Your task to perform on an android device: clear history in the chrome app Image 0: 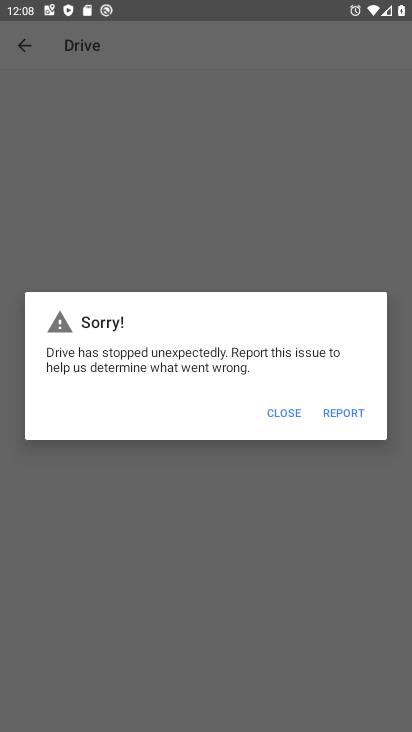
Step 0: press home button
Your task to perform on an android device: clear history in the chrome app Image 1: 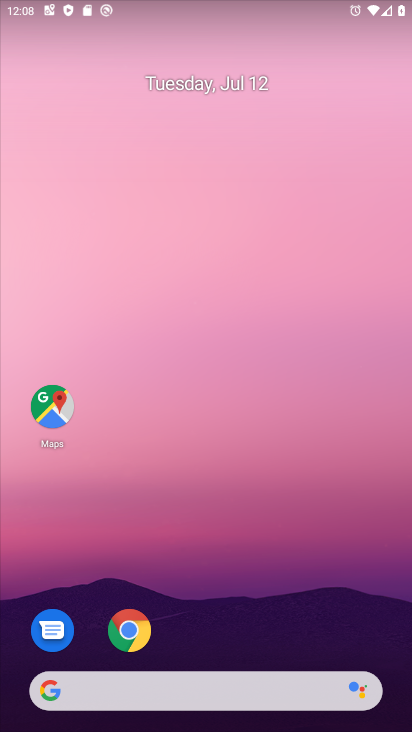
Step 1: click (130, 631)
Your task to perform on an android device: clear history in the chrome app Image 2: 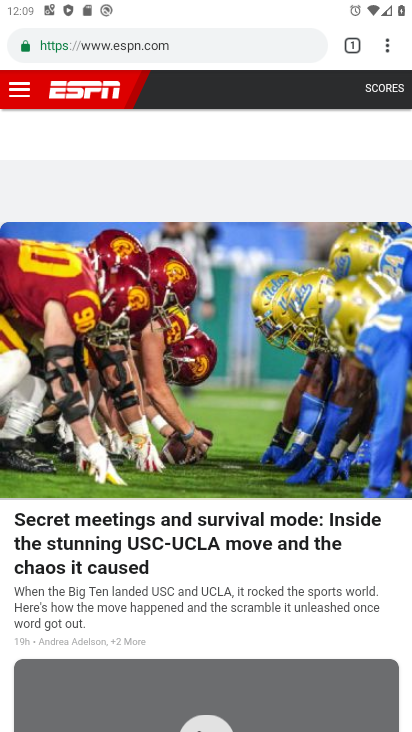
Step 2: click (386, 44)
Your task to perform on an android device: clear history in the chrome app Image 3: 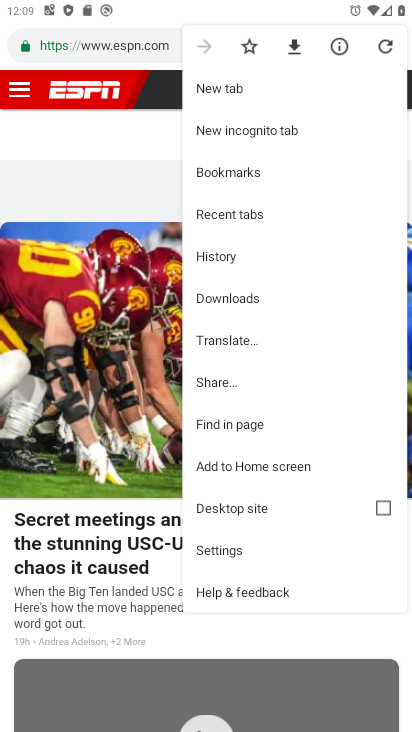
Step 3: click (232, 257)
Your task to perform on an android device: clear history in the chrome app Image 4: 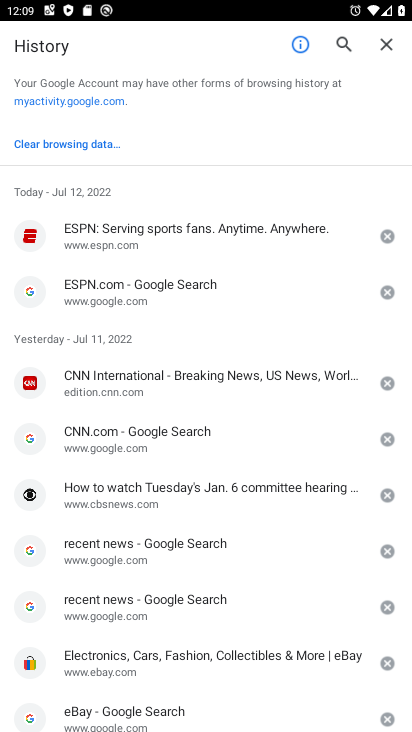
Step 4: click (70, 143)
Your task to perform on an android device: clear history in the chrome app Image 5: 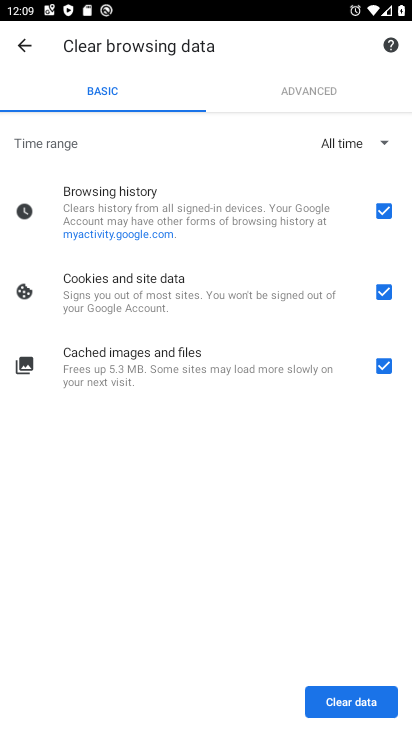
Step 5: click (359, 700)
Your task to perform on an android device: clear history in the chrome app Image 6: 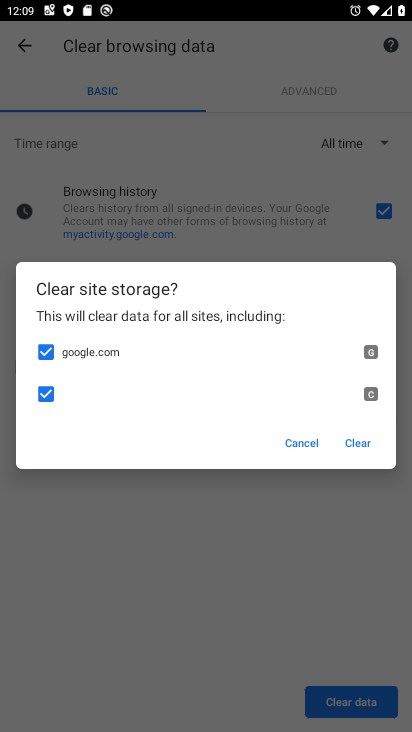
Step 6: click (358, 441)
Your task to perform on an android device: clear history in the chrome app Image 7: 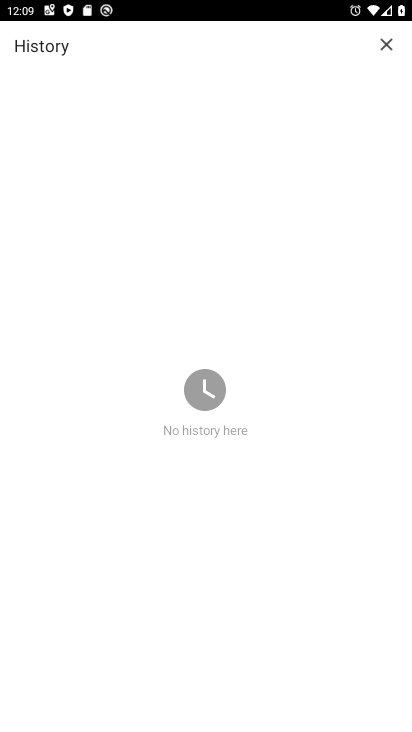
Step 7: task complete